Your task to perform on an android device: See recent photos Image 0: 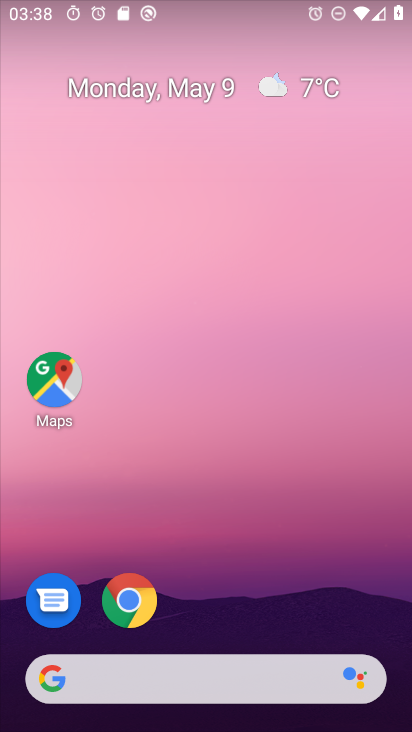
Step 0: drag from (175, 677) to (152, 206)
Your task to perform on an android device: See recent photos Image 1: 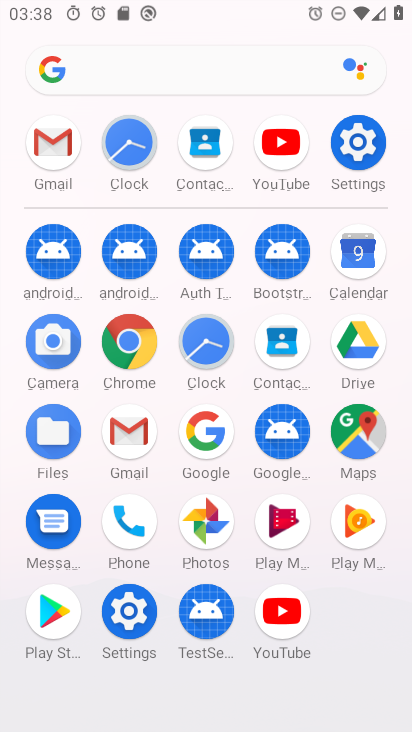
Step 1: click (219, 506)
Your task to perform on an android device: See recent photos Image 2: 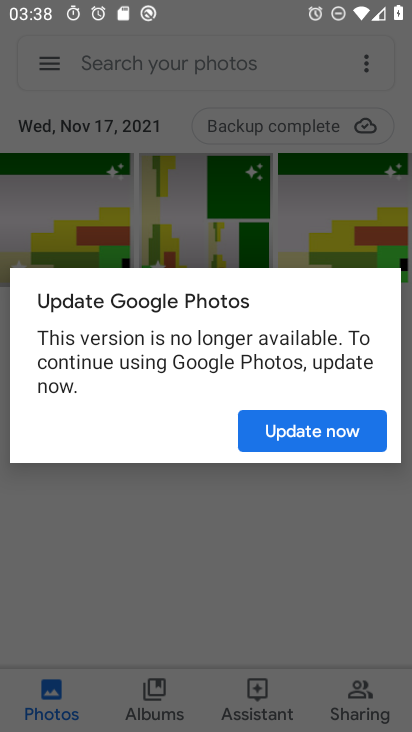
Step 2: click (332, 437)
Your task to perform on an android device: See recent photos Image 3: 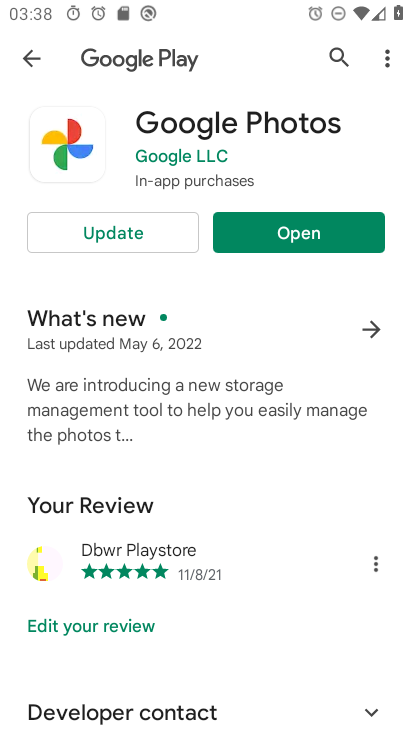
Step 3: click (154, 254)
Your task to perform on an android device: See recent photos Image 4: 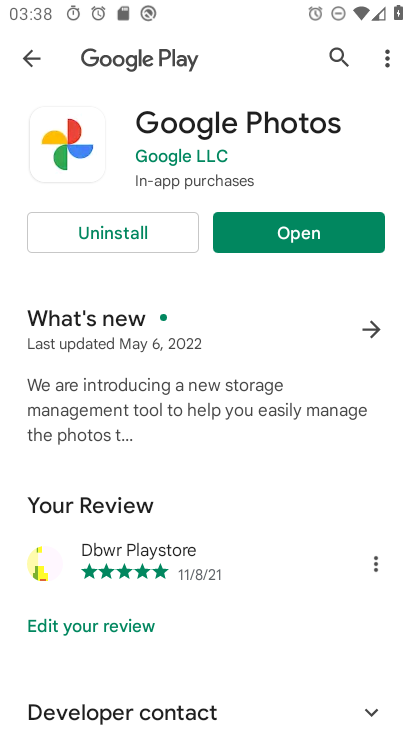
Step 4: click (253, 235)
Your task to perform on an android device: See recent photos Image 5: 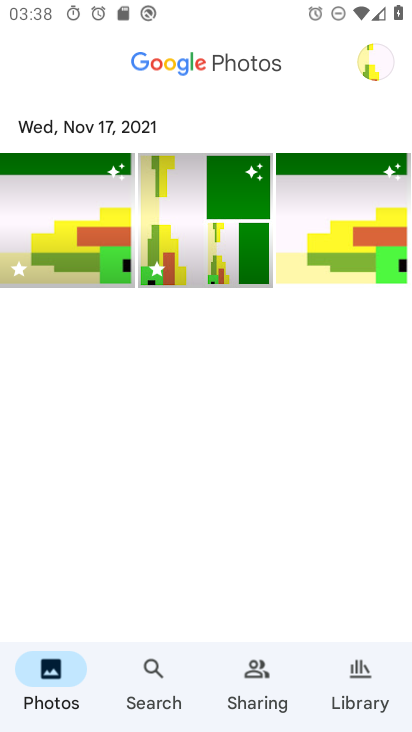
Step 5: task complete